Your task to perform on an android device: open app "Microsoft Outlook" Image 0: 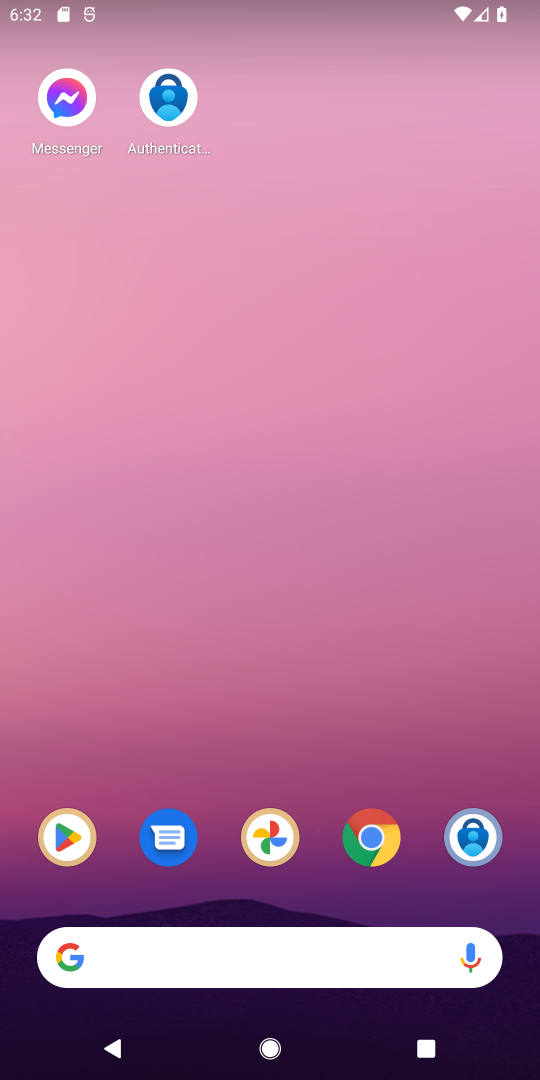
Step 0: click (69, 848)
Your task to perform on an android device: open app "Microsoft Outlook" Image 1: 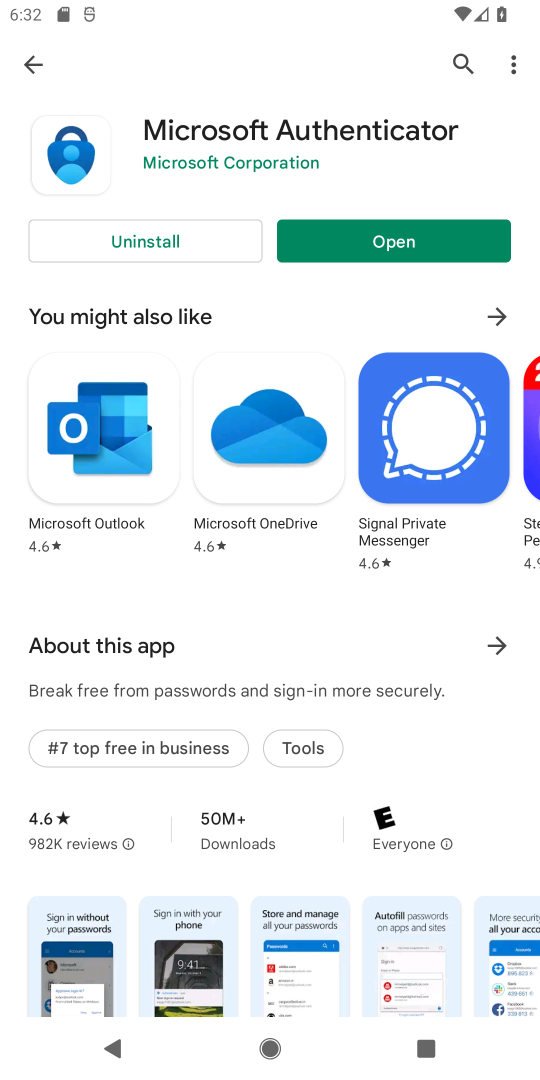
Step 1: click (463, 68)
Your task to perform on an android device: open app "Microsoft Outlook" Image 2: 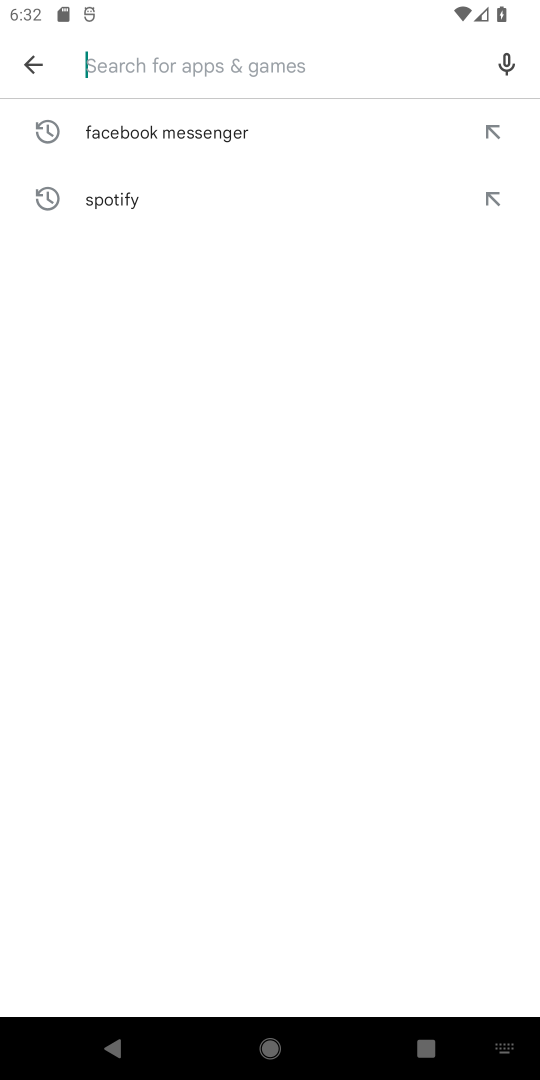
Step 2: type "Microsoft Outlook"
Your task to perform on an android device: open app "Microsoft Outlook" Image 3: 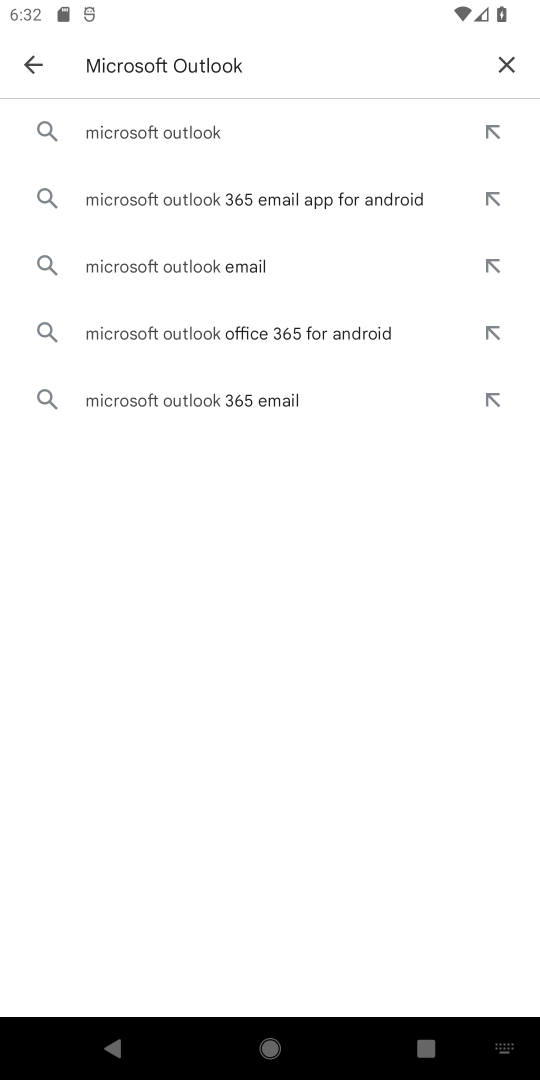
Step 3: click (134, 124)
Your task to perform on an android device: open app "Microsoft Outlook" Image 4: 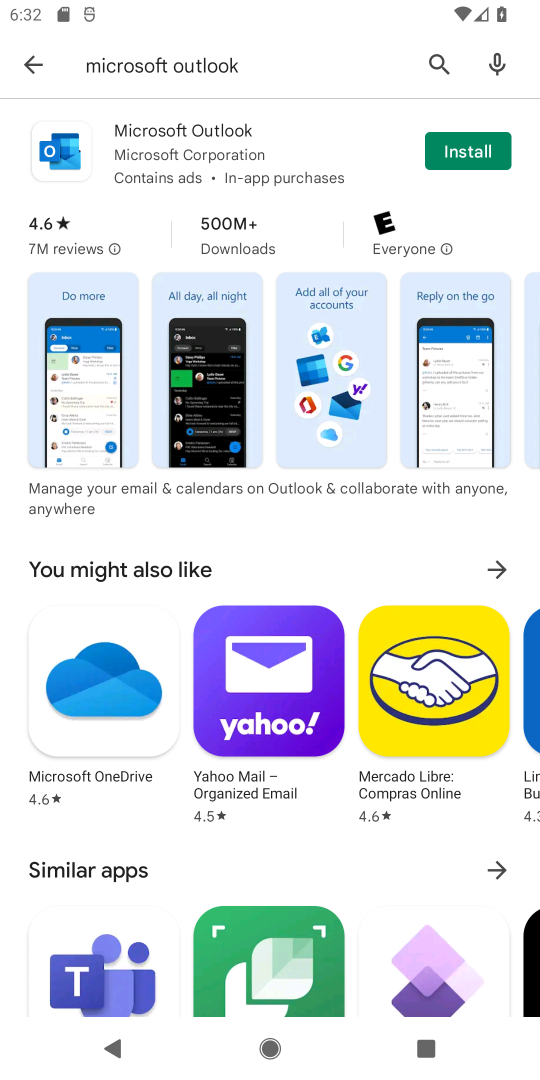
Step 4: task complete